Your task to perform on an android device: see tabs open on other devices in the chrome app Image 0: 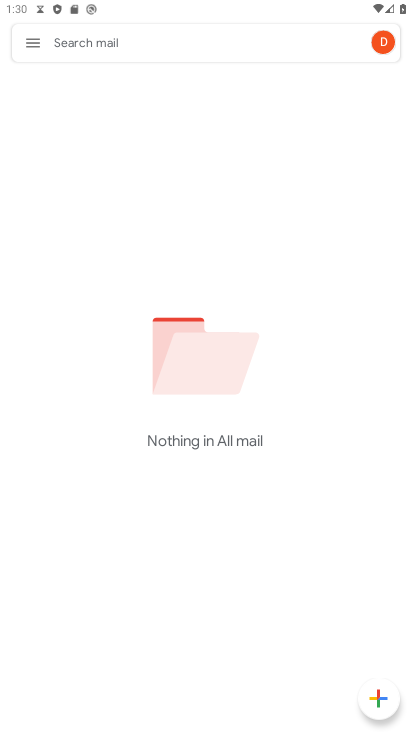
Step 0: press home button
Your task to perform on an android device: see tabs open on other devices in the chrome app Image 1: 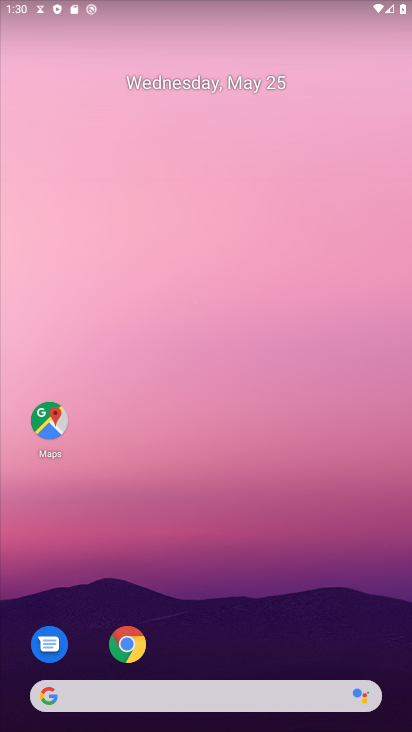
Step 1: drag from (204, 633) to (204, 114)
Your task to perform on an android device: see tabs open on other devices in the chrome app Image 2: 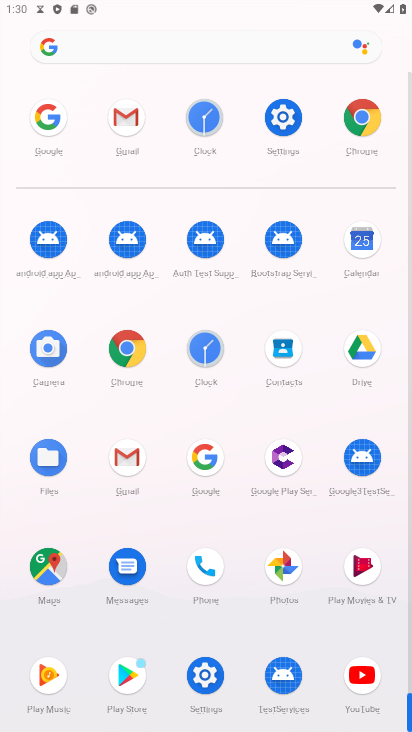
Step 2: click (383, 139)
Your task to perform on an android device: see tabs open on other devices in the chrome app Image 3: 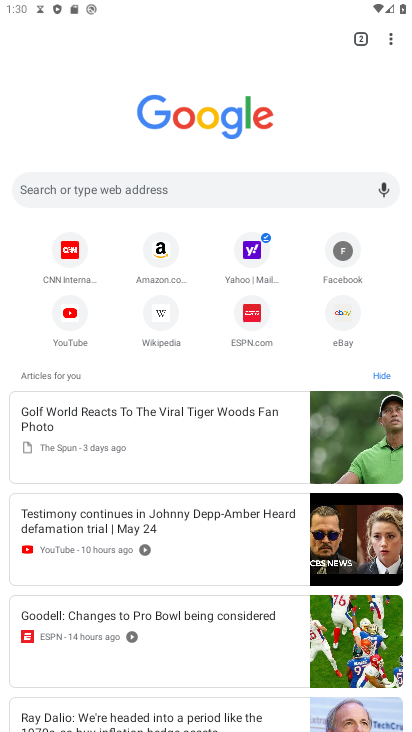
Step 3: click (389, 46)
Your task to perform on an android device: see tabs open on other devices in the chrome app Image 4: 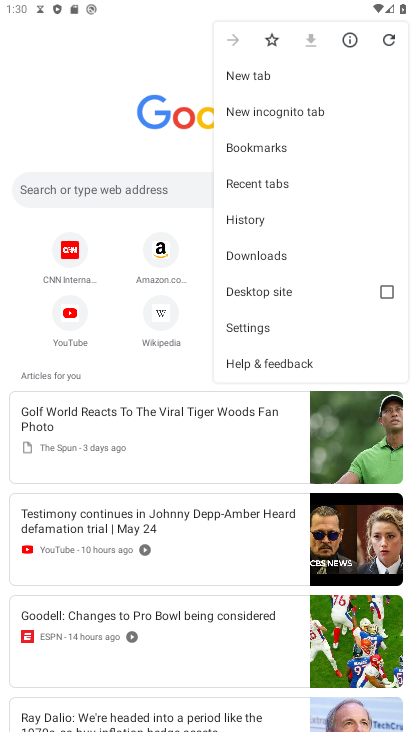
Step 4: click (264, 184)
Your task to perform on an android device: see tabs open on other devices in the chrome app Image 5: 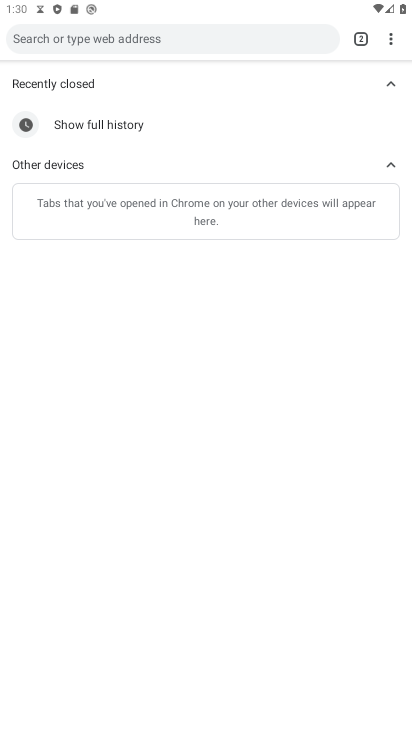
Step 5: task complete